Your task to perform on an android device: read, delete, or share a saved page in the chrome app Image 0: 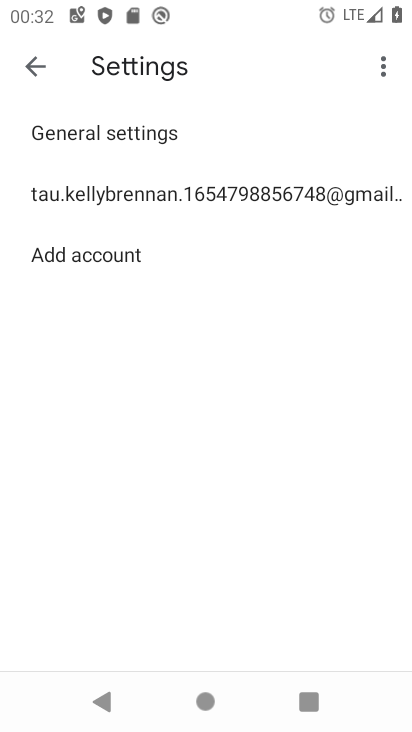
Step 0: press home button
Your task to perform on an android device: read, delete, or share a saved page in the chrome app Image 1: 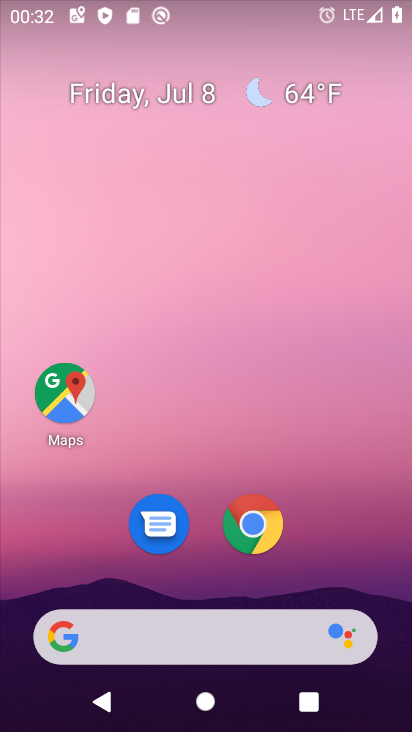
Step 1: click (266, 522)
Your task to perform on an android device: read, delete, or share a saved page in the chrome app Image 2: 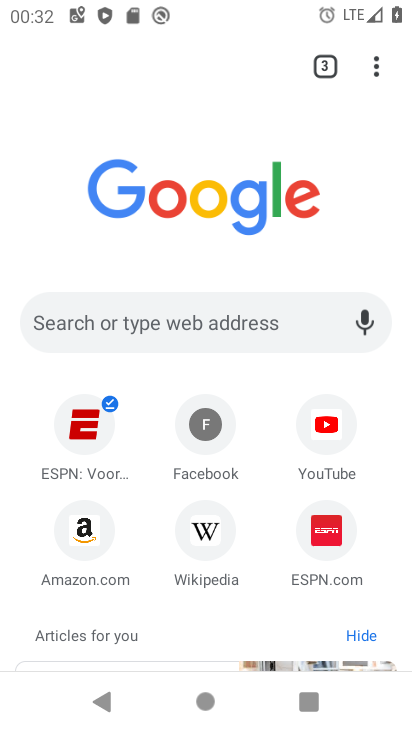
Step 2: click (373, 68)
Your task to perform on an android device: read, delete, or share a saved page in the chrome app Image 3: 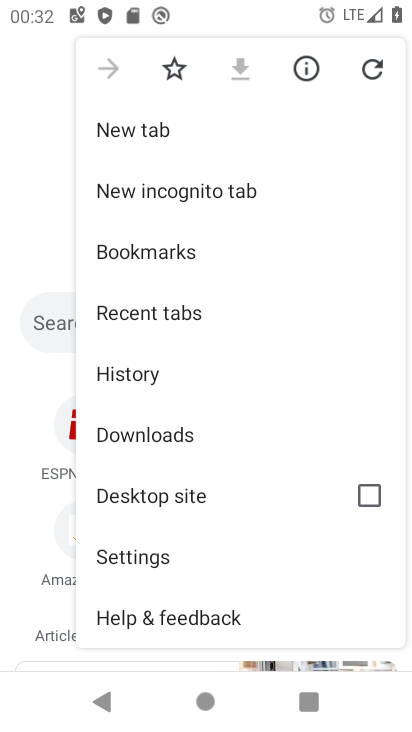
Step 3: click (181, 432)
Your task to perform on an android device: read, delete, or share a saved page in the chrome app Image 4: 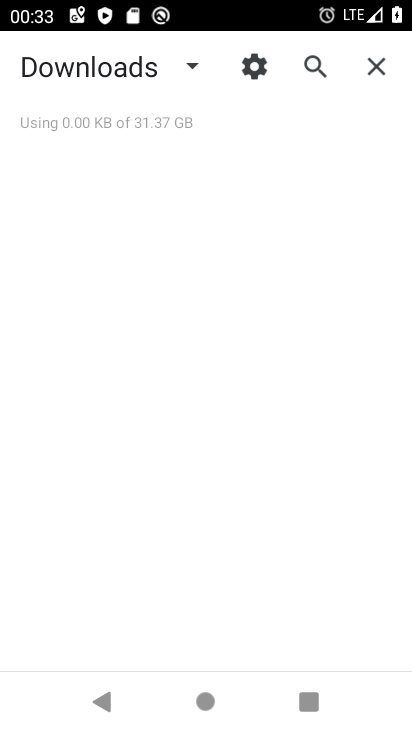
Step 4: task complete